Your task to perform on an android device: install app "Contacts" Image 0: 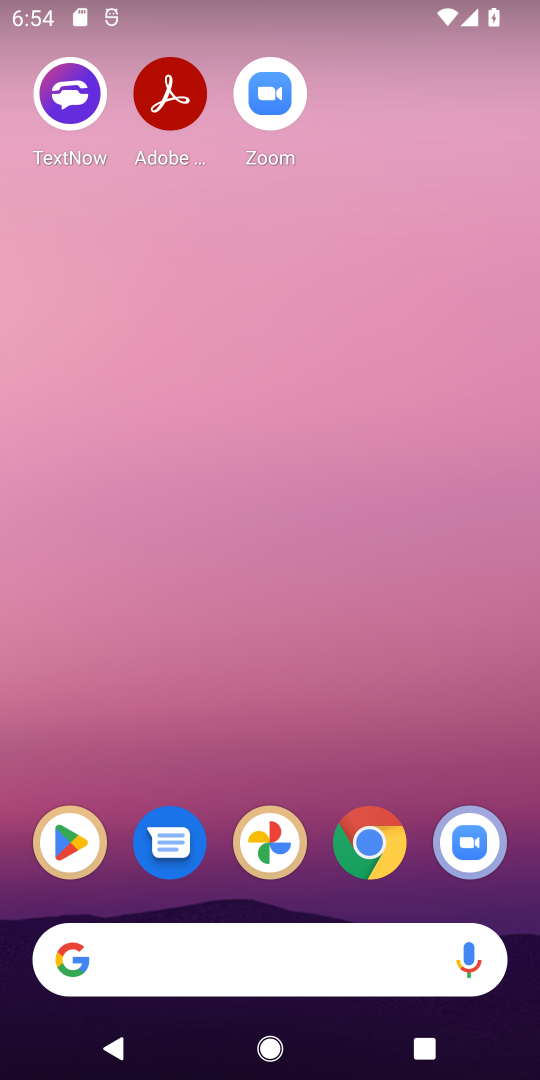
Step 0: drag from (317, 855) to (298, 260)
Your task to perform on an android device: install app "Contacts" Image 1: 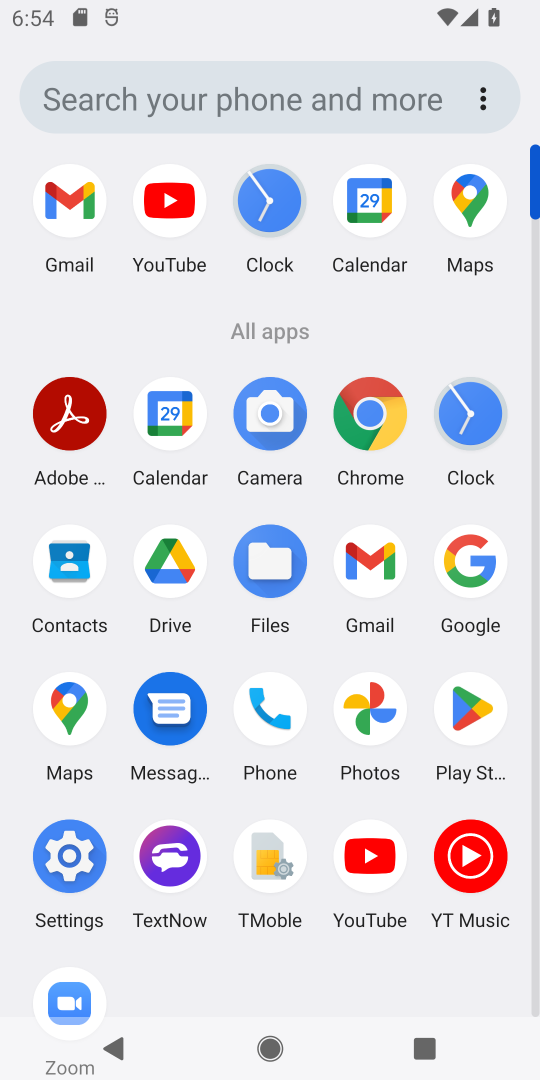
Step 1: click (456, 710)
Your task to perform on an android device: install app "Contacts" Image 2: 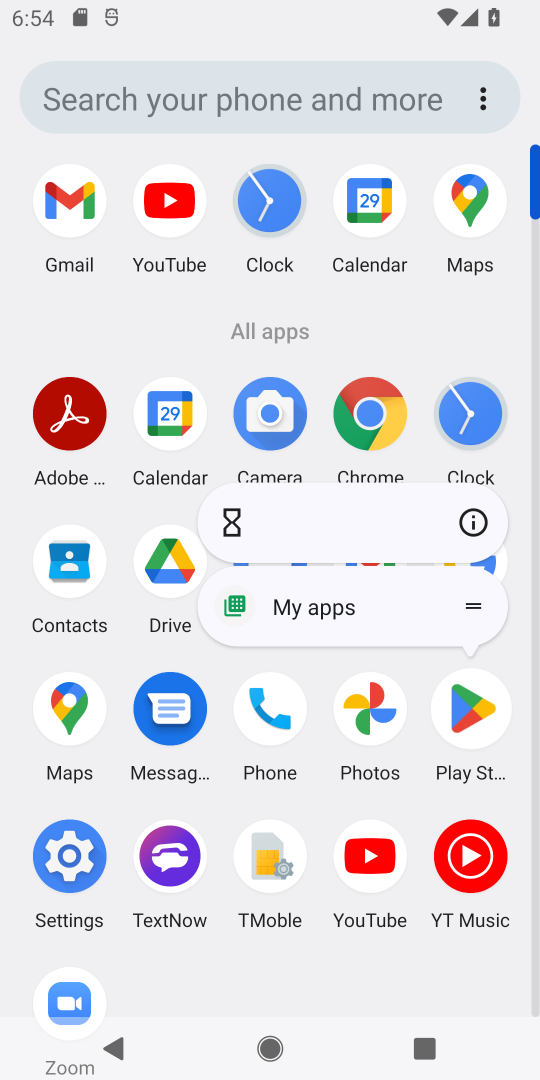
Step 2: click (463, 708)
Your task to perform on an android device: install app "Contacts" Image 3: 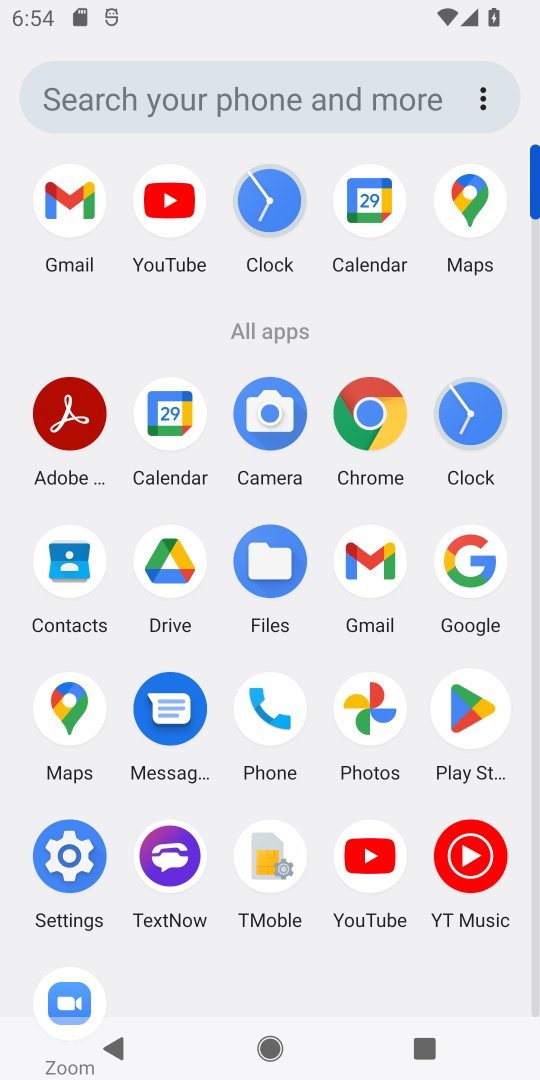
Step 3: click (466, 708)
Your task to perform on an android device: install app "Contacts" Image 4: 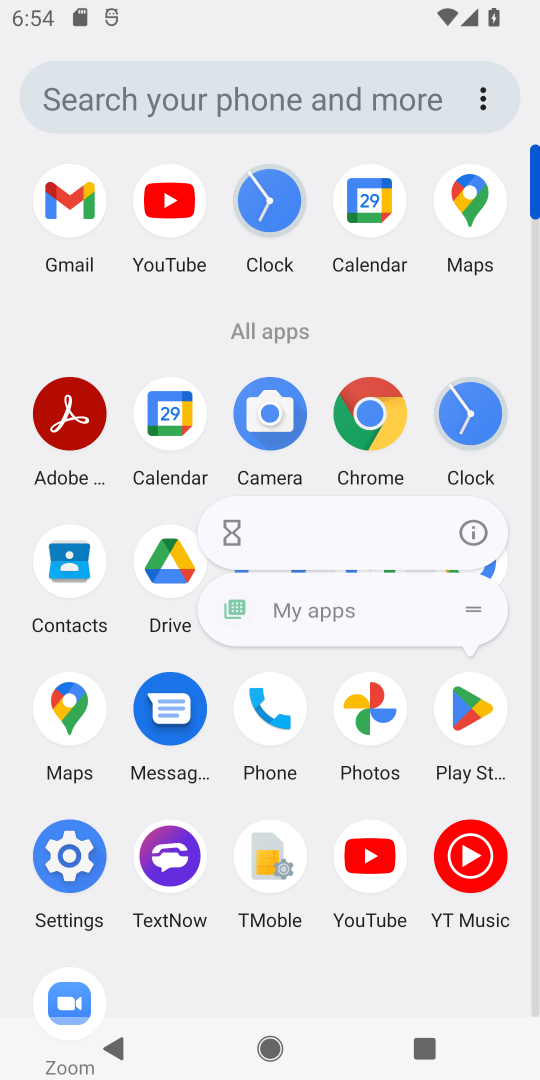
Step 4: click (466, 708)
Your task to perform on an android device: install app "Contacts" Image 5: 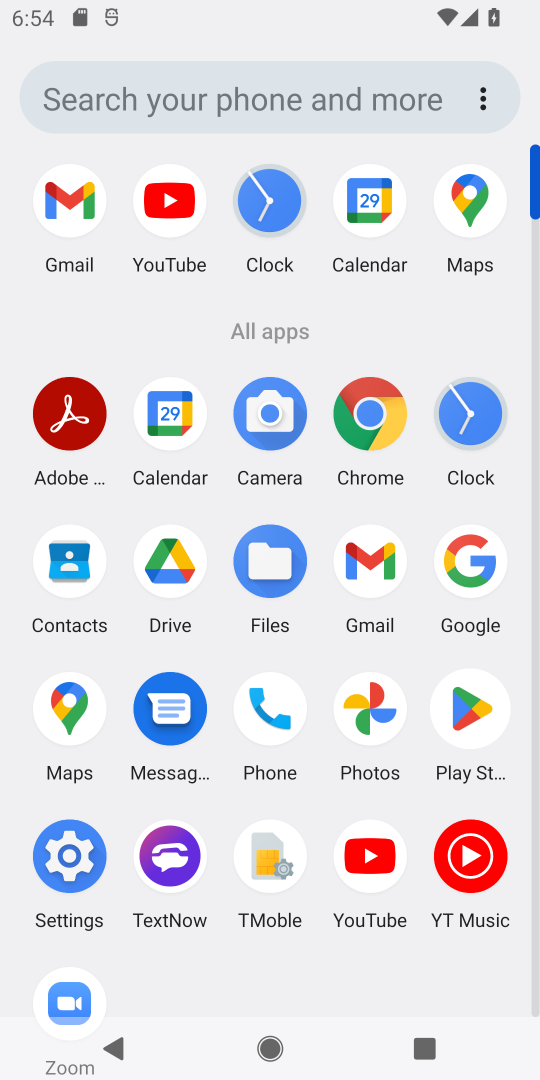
Step 5: click (470, 708)
Your task to perform on an android device: install app "Contacts" Image 6: 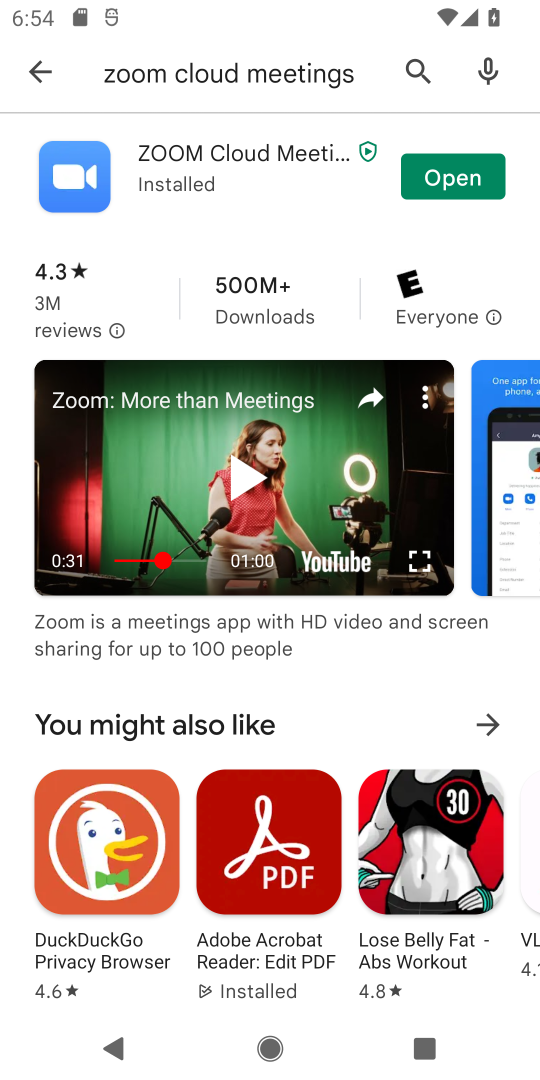
Step 6: click (41, 68)
Your task to perform on an android device: install app "Contacts" Image 7: 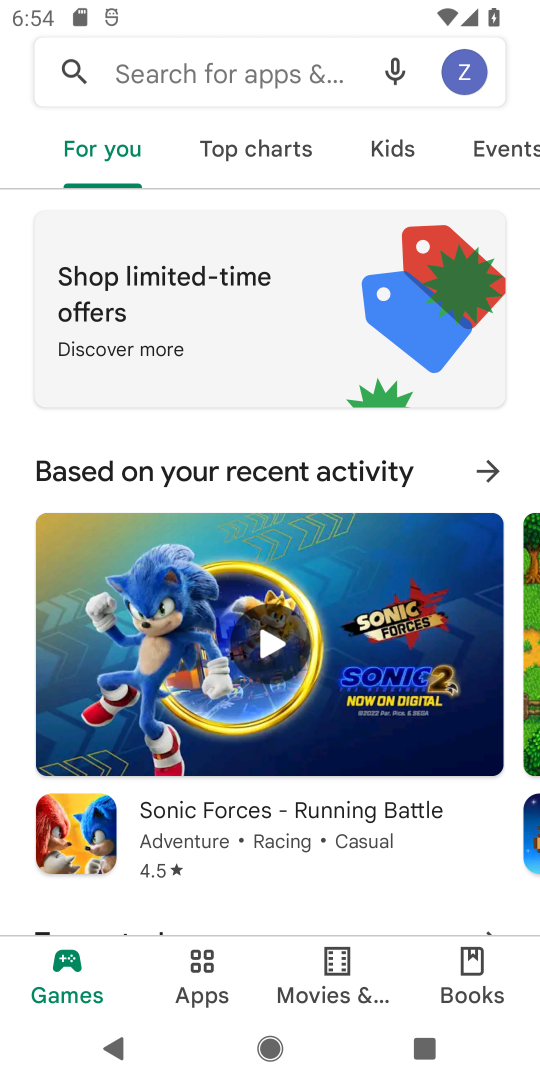
Step 7: click (124, 67)
Your task to perform on an android device: install app "Contacts" Image 8: 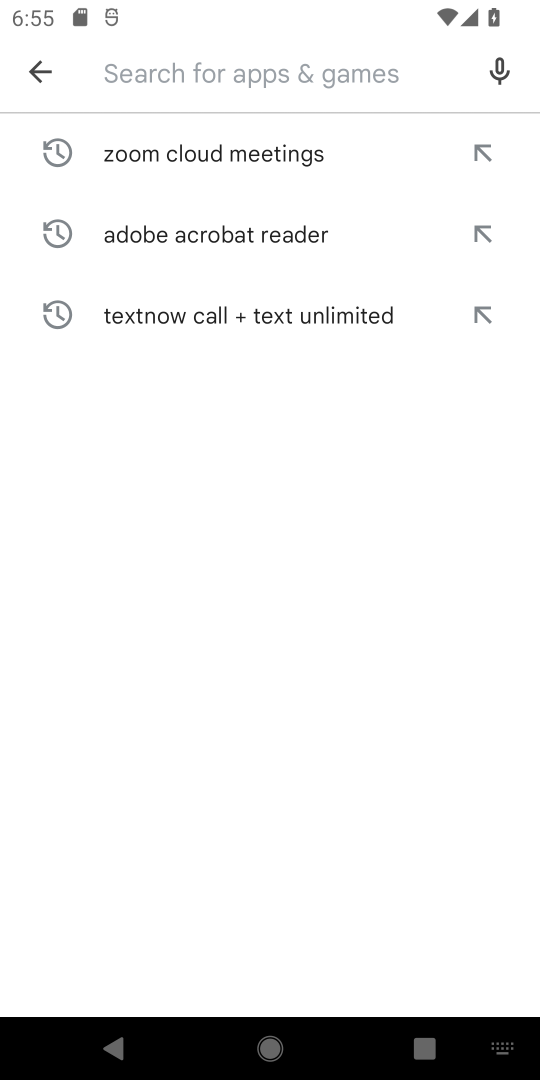
Step 8: type "contacts"
Your task to perform on an android device: install app "Contacts" Image 9: 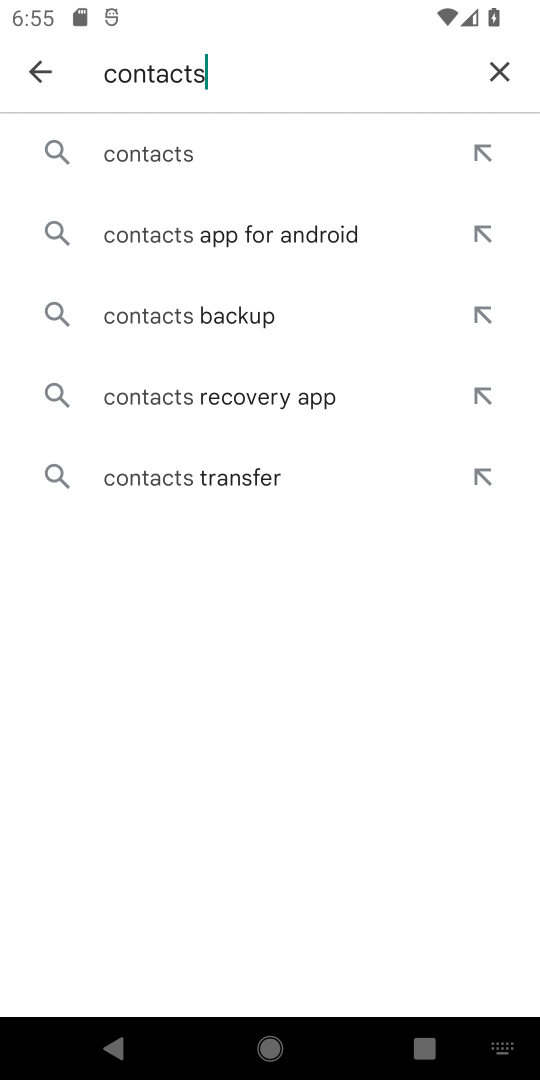
Step 9: click (169, 179)
Your task to perform on an android device: install app "Contacts" Image 10: 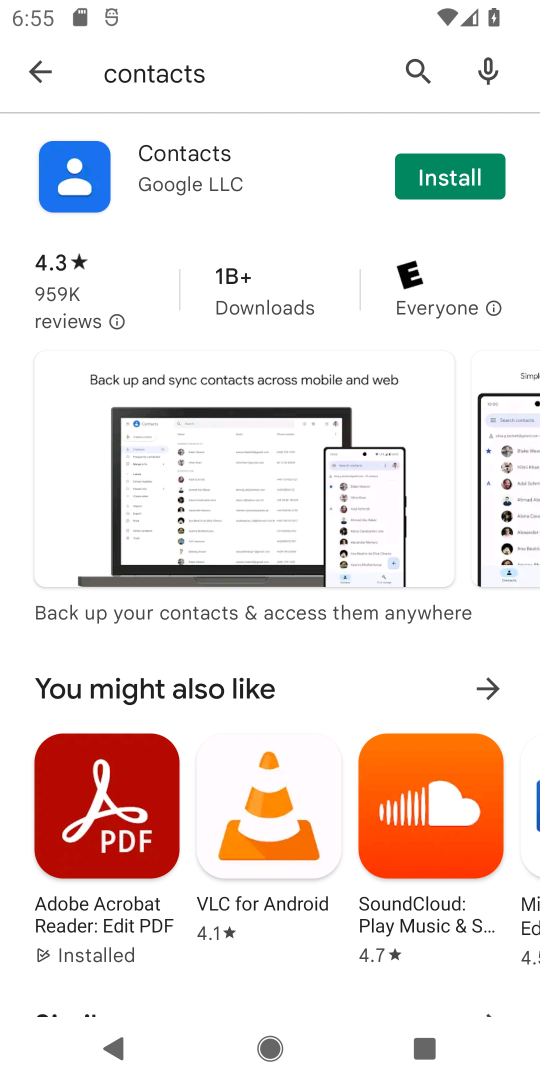
Step 10: click (443, 165)
Your task to perform on an android device: install app "Contacts" Image 11: 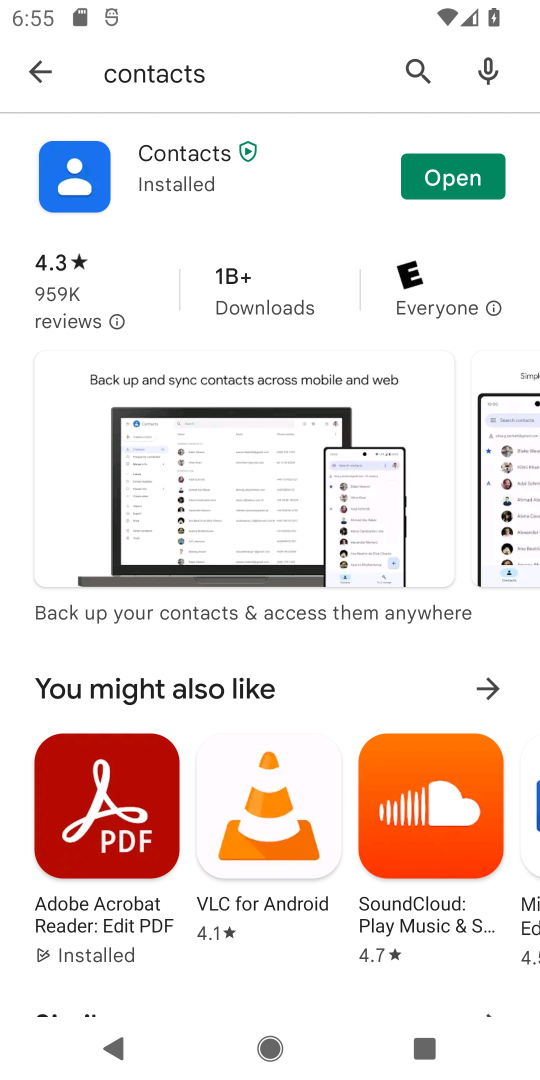
Step 11: click (467, 183)
Your task to perform on an android device: install app "Contacts" Image 12: 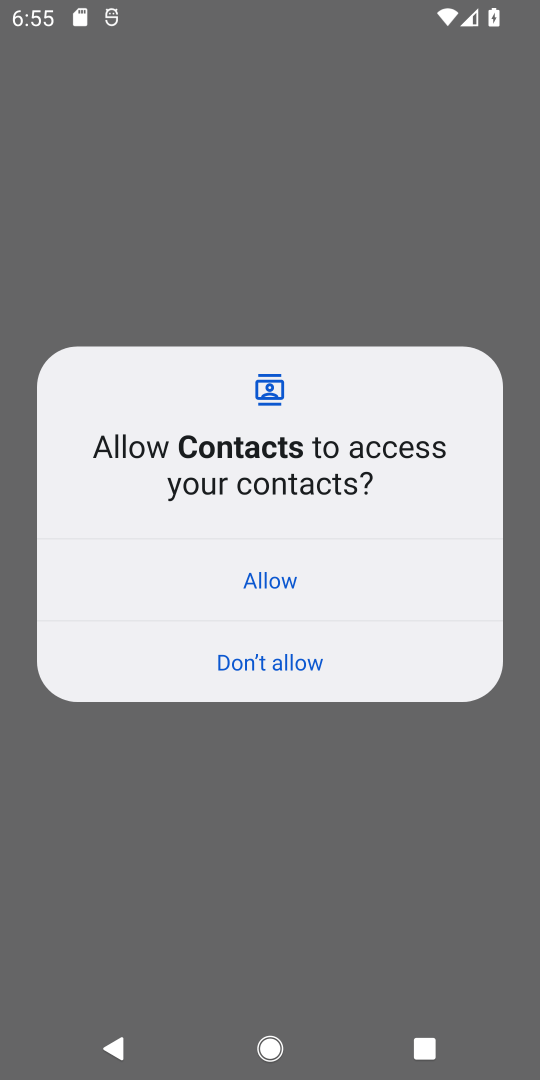
Step 12: click (289, 584)
Your task to perform on an android device: install app "Contacts" Image 13: 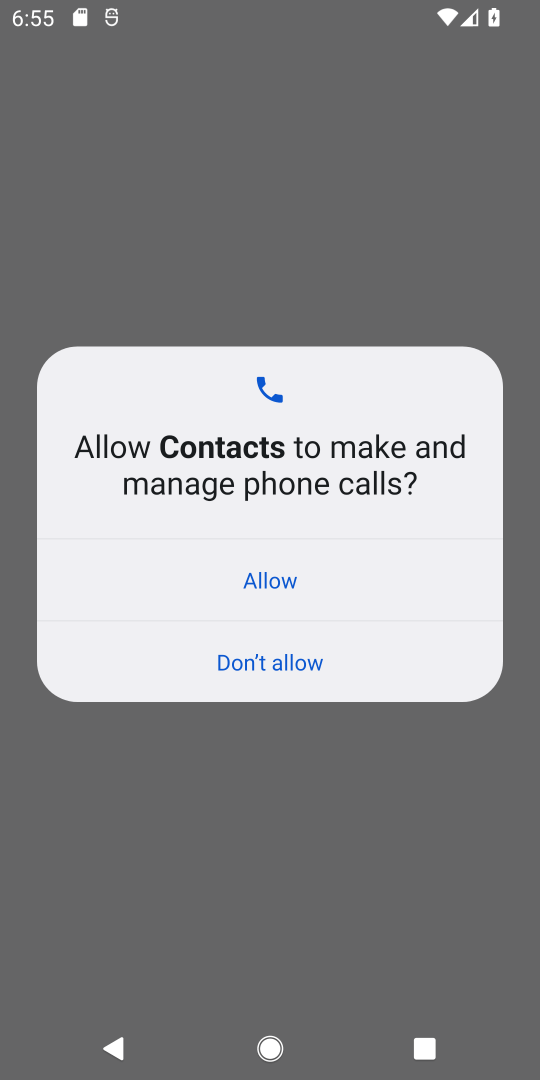
Step 13: click (284, 588)
Your task to perform on an android device: install app "Contacts" Image 14: 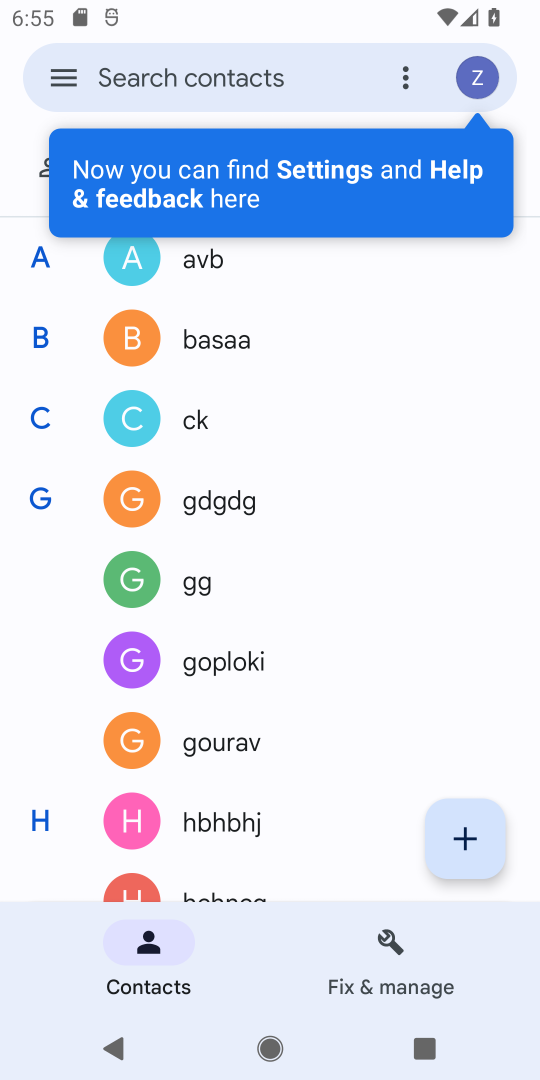
Step 14: task complete